Your task to perform on an android device: remove spam from my inbox in the gmail app Image 0: 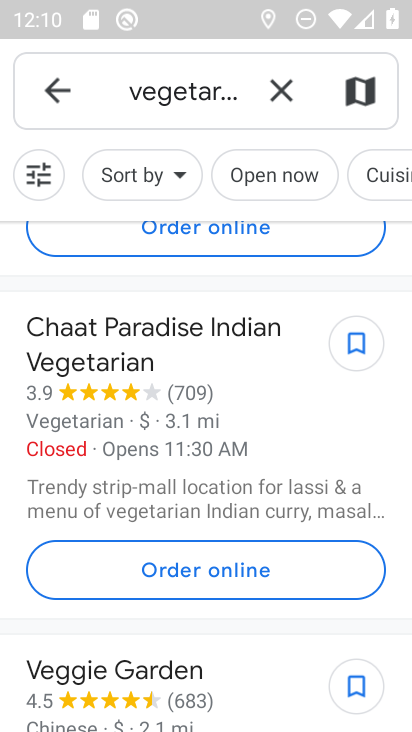
Step 0: drag from (139, 382) to (266, 723)
Your task to perform on an android device: remove spam from my inbox in the gmail app Image 1: 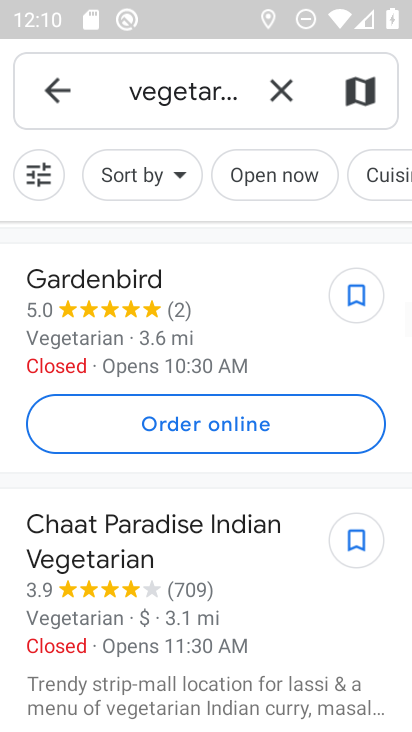
Step 1: press home button
Your task to perform on an android device: remove spam from my inbox in the gmail app Image 2: 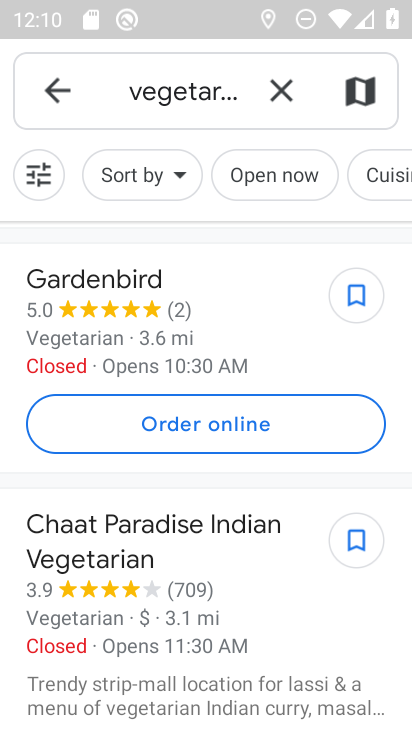
Step 2: drag from (266, 723) to (410, 372)
Your task to perform on an android device: remove spam from my inbox in the gmail app Image 3: 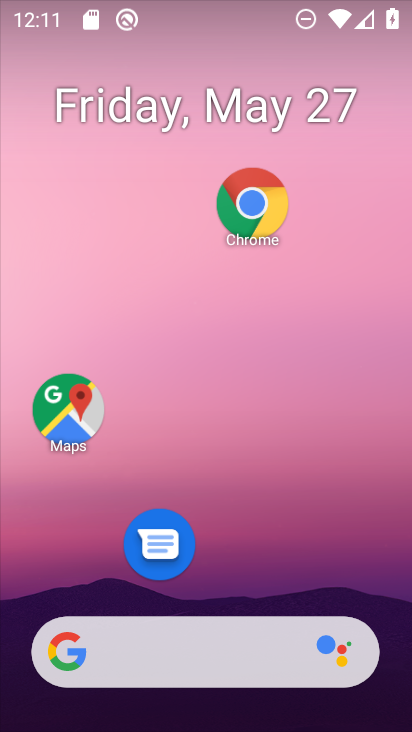
Step 3: drag from (216, 583) to (158, 230)
Your task to perform on an android device: remove spam from my inbox in the gmail app Image 4: 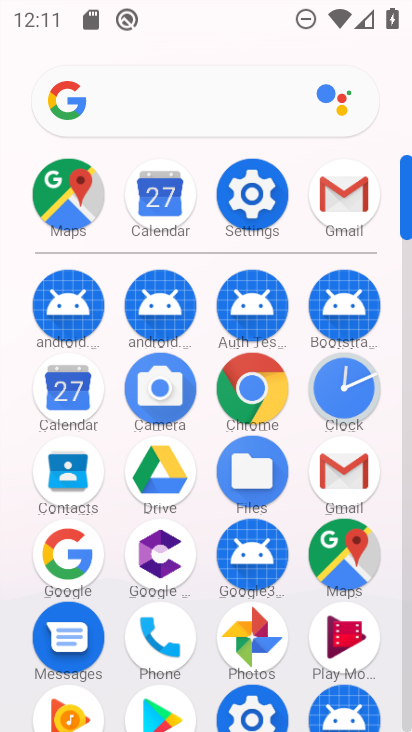
Step 4: click (355, 466)
Your task to perform on an android device: remove spam from my inbox in the gmail app Image 5: 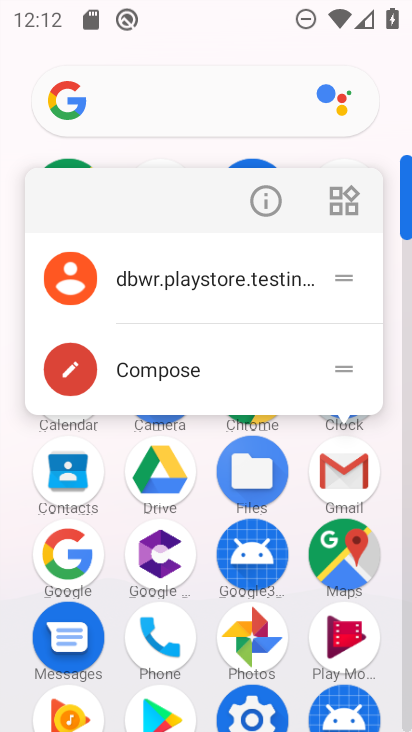
Step 5: click (184, 277)
Your task to perform on an android device: remove spam from my inbox in the gmail app Image 6: 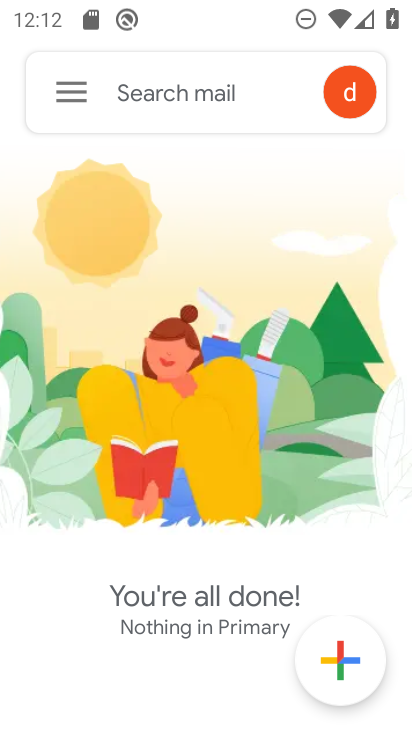
Step 6: click (65, 91)
Your task to perform on an android device: remove spam from my inbox in the gmail app Image 7: 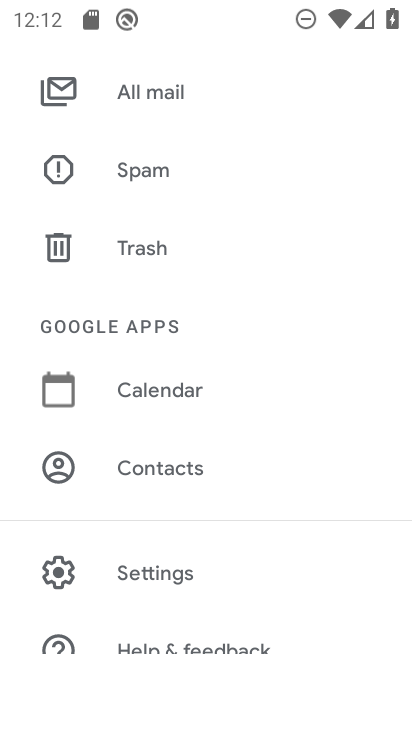
Step 7: click (154, 161)
Your task to perform on an android device: remove spam from my inbox in the gmail app Image 8: 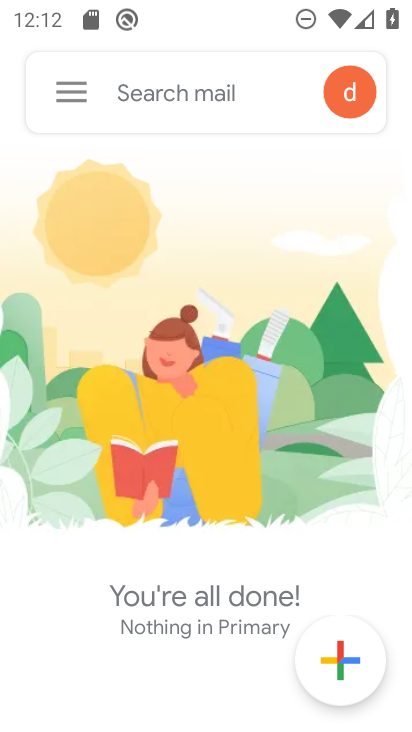
Step 8: task complete